Your task to perform on an android device: toggle notification dots Image 0: 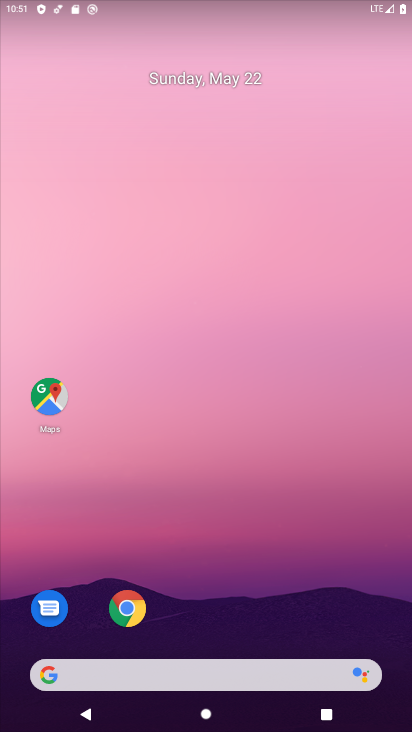
Step 0: drag from (218, 728) to (163, 68)
Your task to perform on an android device: toggle notification dots Image 1: 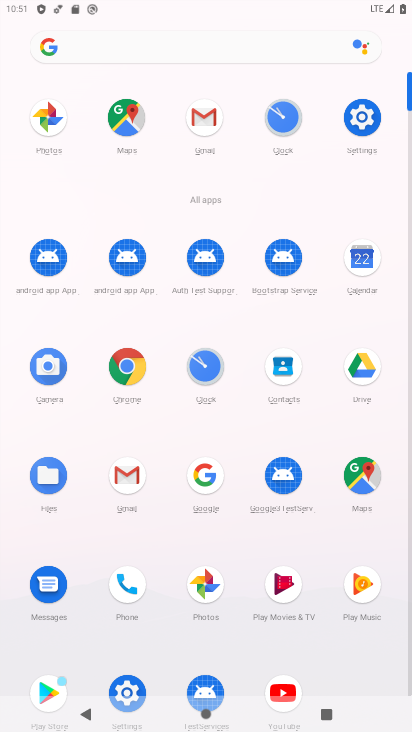
Step 1: click (123, 684)
Your task to perform on an android device: toggle notification dots Image 2: 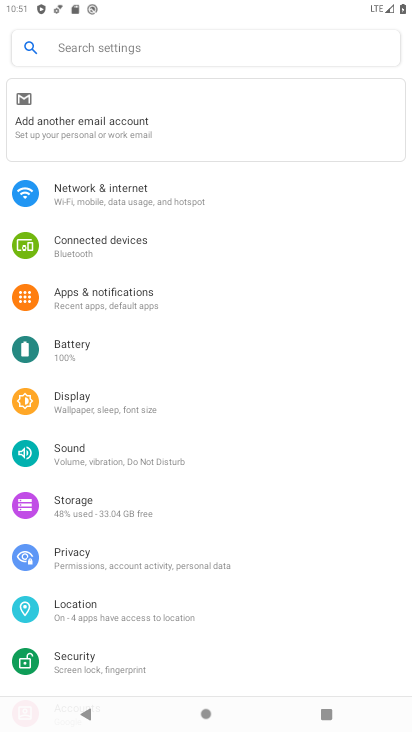
Step 2: click (105, 290)
Your task to perform on an android device: toggle notification dots Image 3: 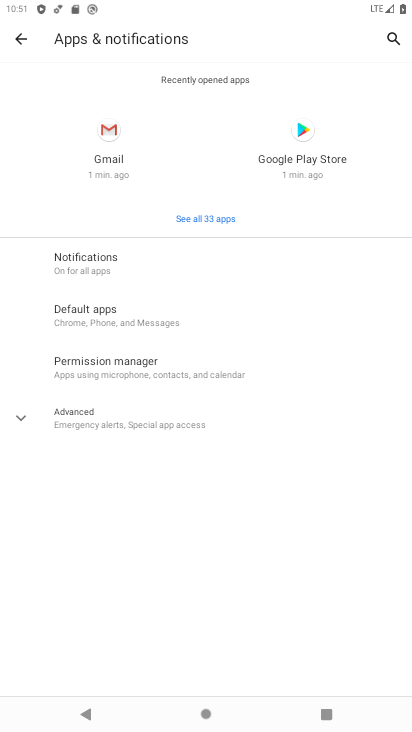
Step 3: click (83, 266)
Your task to perform on an android device: toggle notification dots Image 4: 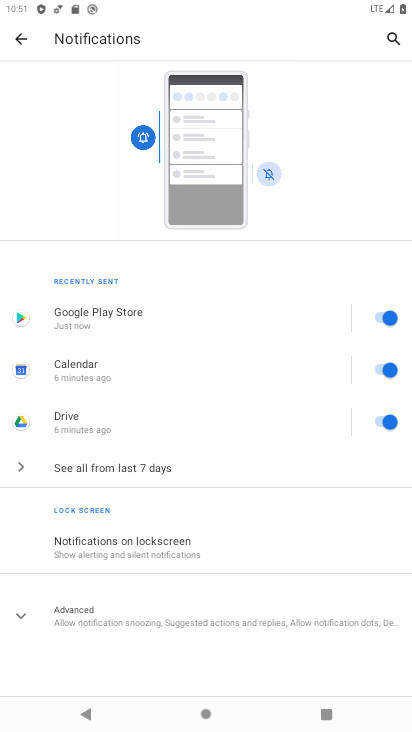
Step 4: click (99, 613)
Your task to perform on an android device: toggle notification dots Image 5: 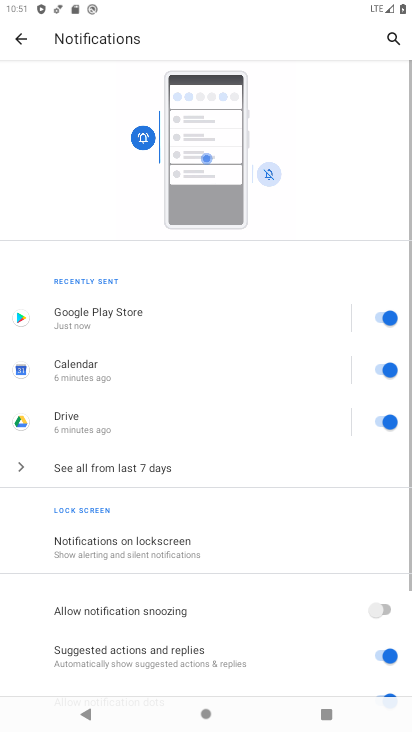
Step 5: drag from (139, 588) to (140, 305)
Your task to perform on an android device: toggle notification dots Image 6: 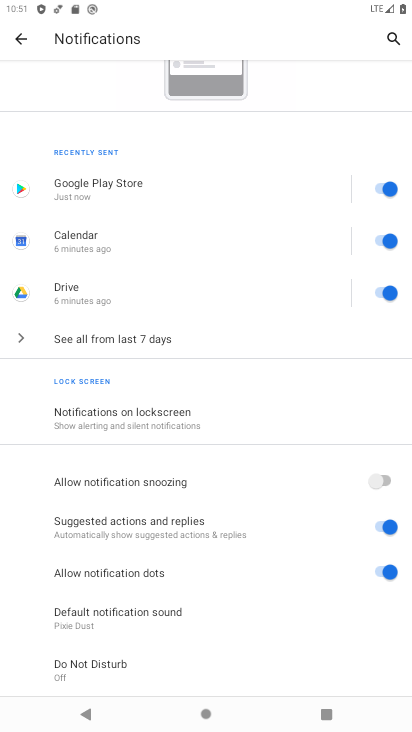
Step 6: click (387, 569)
Your task to perform on an android device: toggle notification dots Image 7: 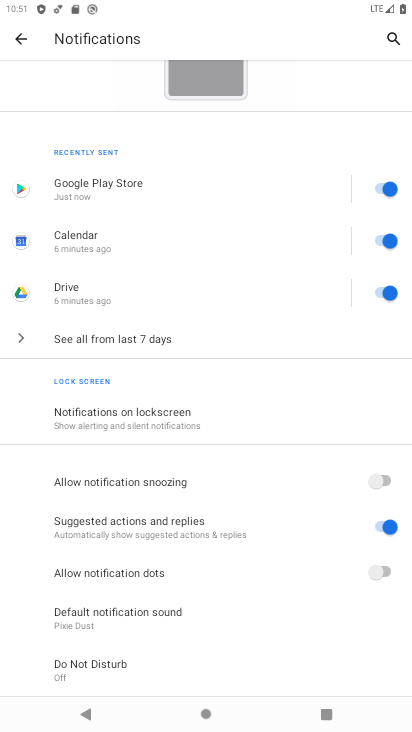
Step 7: task complete